Your task to perform on an android device: Open Google Chrome Image 0: 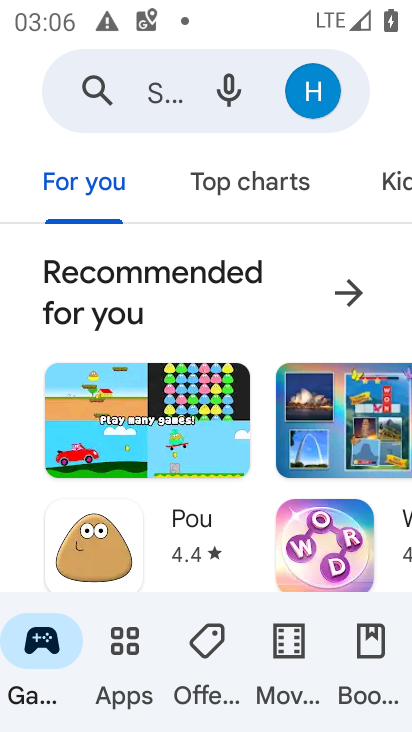
Step 0: press home button
Your task to perform on an android device: Open Google Chrome Image 1: 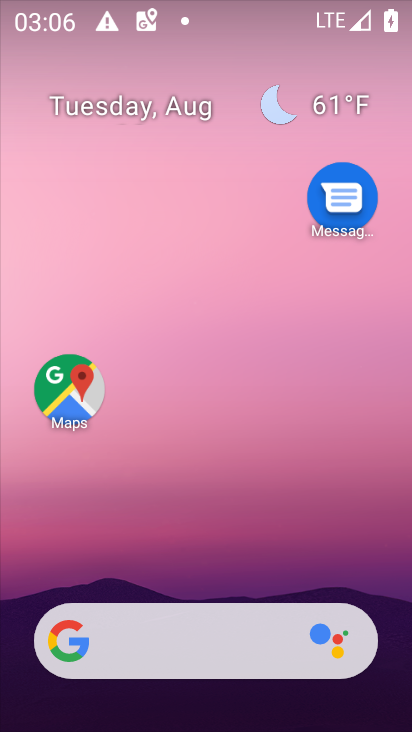
Step 1: drag from (253, 572) to (252, 156)
Your task to perform on an android device: Open Google Chrome Image 2: 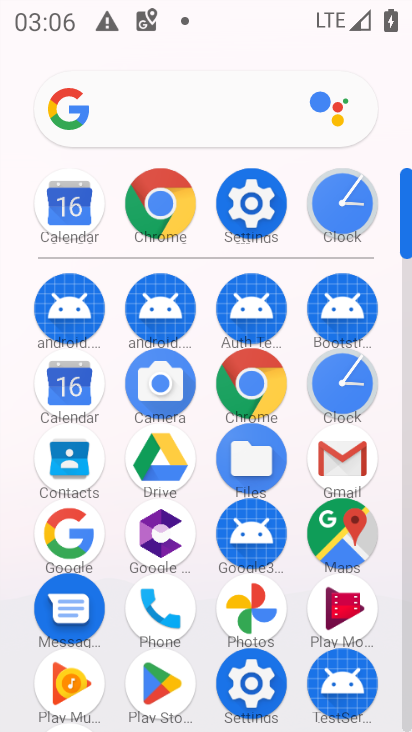
Step 2: click (153, 220)
Your task to perform on an android device: Open Google Chrome Image 3: 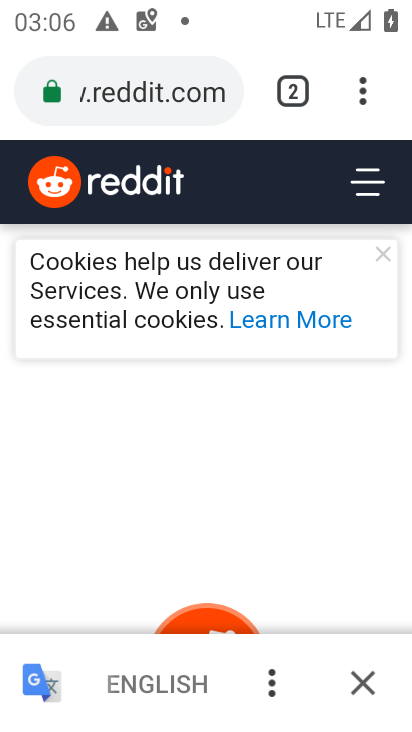
Step 3: task complete